Your task to perform on an android device: What's on my calendar tomorrow? Image 0: 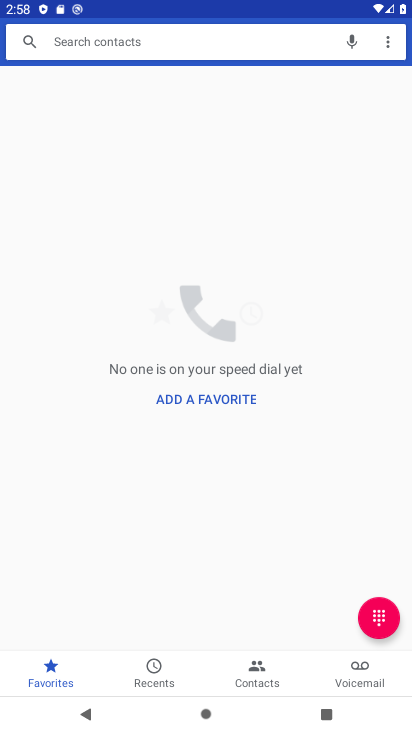
Step 0: press home button
Your task to perform on an android device: What's on my calendar tomorrow? Image 1: 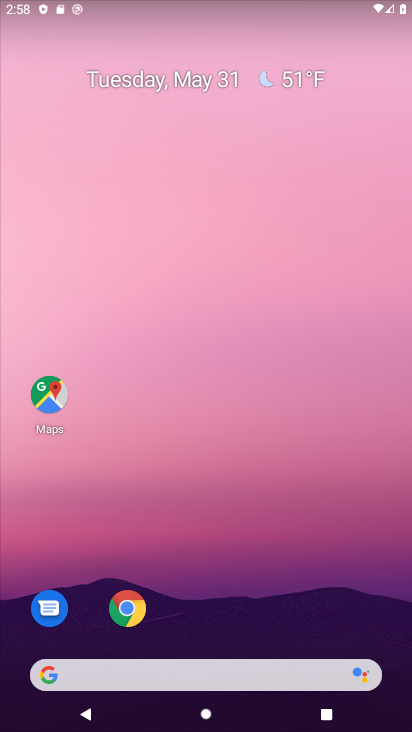
Step 1: drag from (211, 576) to (196, 105)
Your task to perform on an android device: What's on my calendar tomorrow? Image 2: 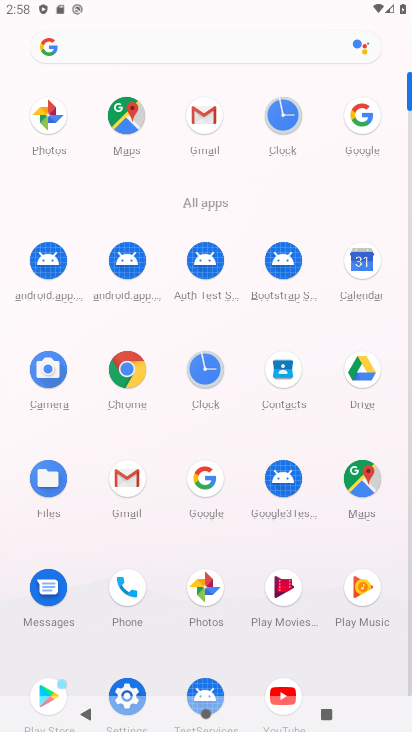
Step 2: click (357, 256)
Your task to perform on an android device: What's on my calendar tomorrow? Image 3: 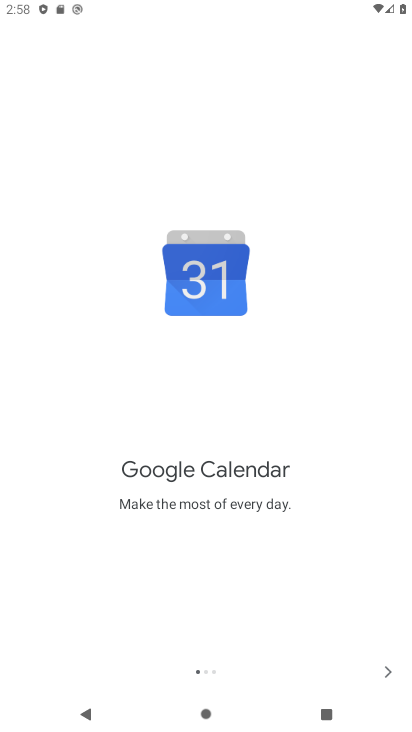
Step 3: click (391, 676)
Your task to perform on an android device: What's on my calendar tomorrow? Image 4: 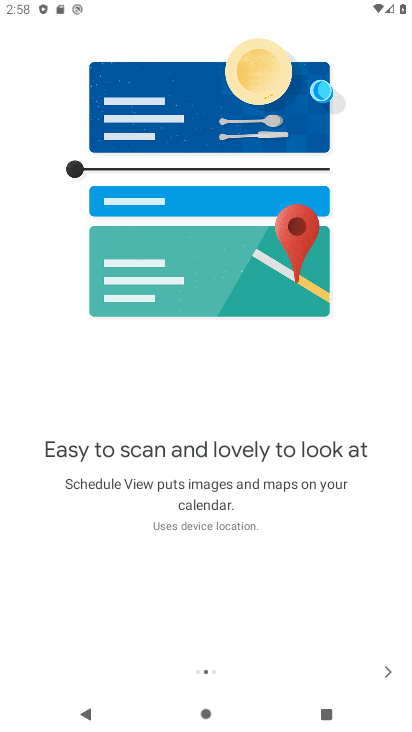
Step 4: click (391, 676)
Your task to perform on an android device: What's on my calendar tomorrow? Image 5: 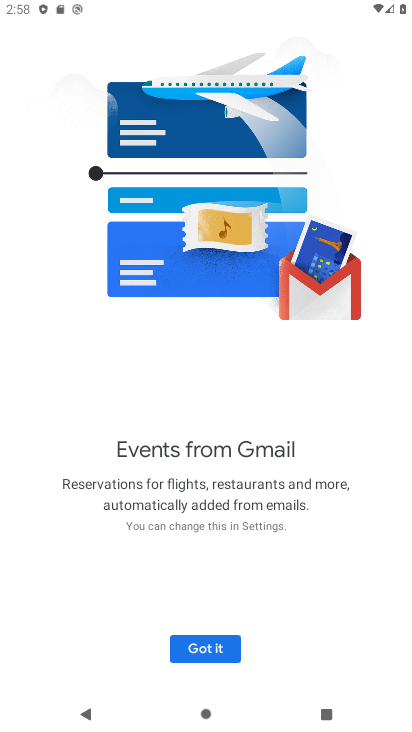
Step 5: click (391, 676)
Your task to perform on an android device: What's on my calendar tomorrow? Image 6: 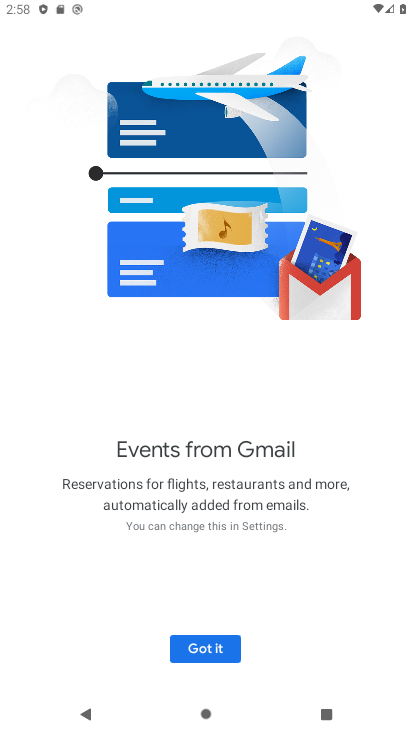
Step 6: click (204, 649)
Your task to perform on an android device: What's on my calendar tomorrow? Image 7: 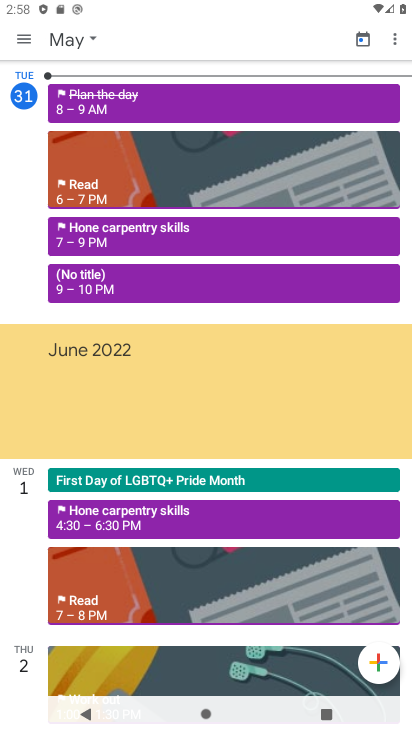
Step 7: click (68, 38)
Your task to perform on an android device: What's on my calendar tomorrow? Image 8: 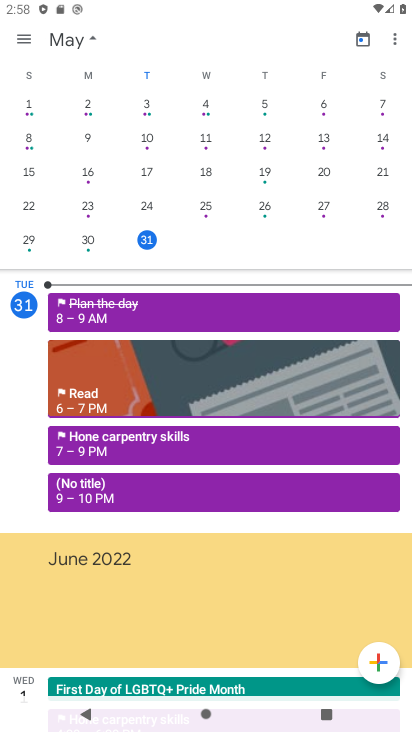
Step 8: drag from (361, 169) to (24, 173)
Your task to perform on an android device: What's on my calendar tomorrow? Image 9: 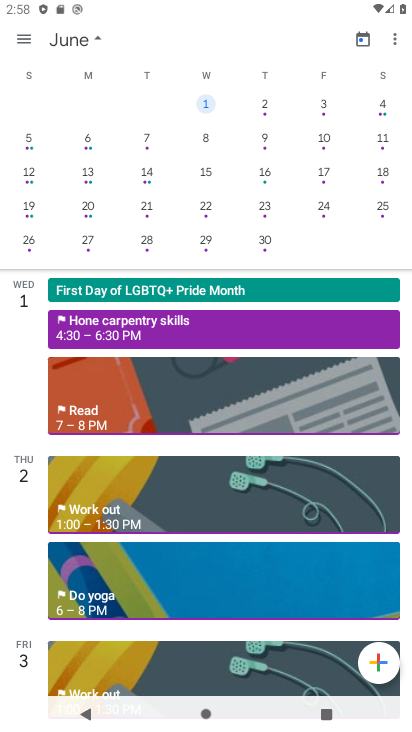
Step 9: click (202, 96)
Your task to perform on an android device: What's on my calendar tomorrow? Image 10: 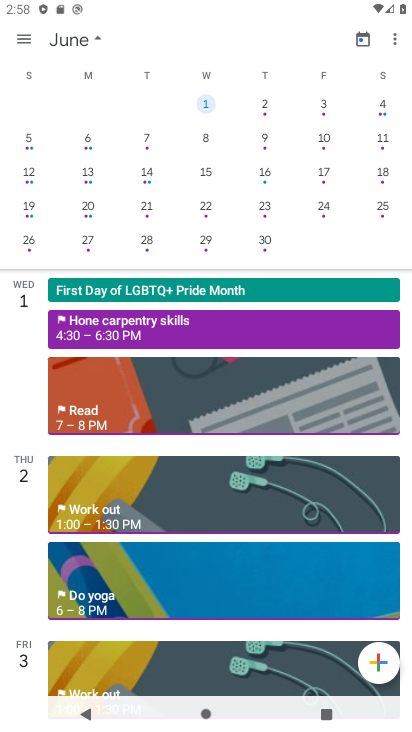
Step 10: task complete